Your task to perform on an android device: Open Yahoo.com Image 0: 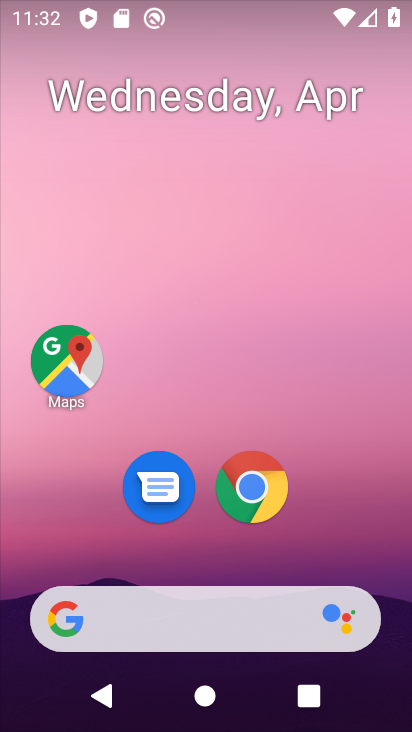
Step 0: click (241, 478)
Your task to perform on an android device: Open Yahoo.com Image 1: 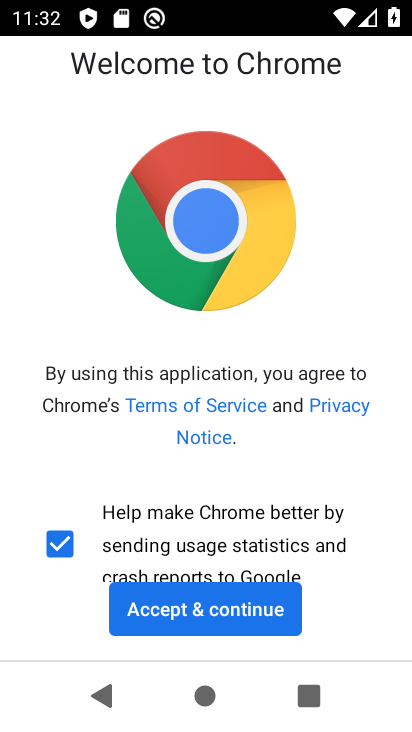
Step 1: click (195, 616)
Your task to perform on an android device: Open Yahoo.com Image 2: 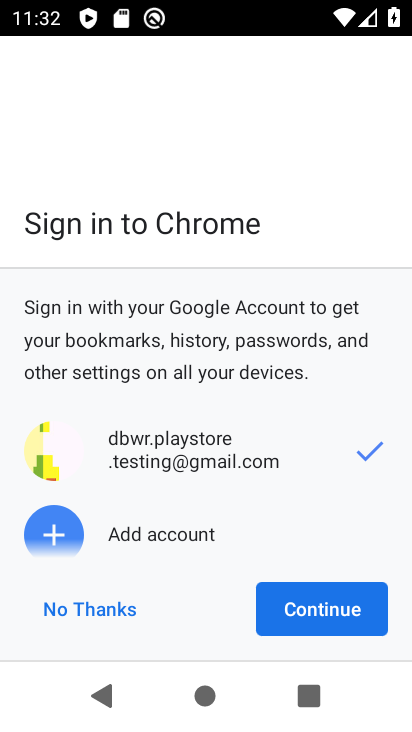
Step 2: click (111, 616)
Your task to perform on an android device: Open Yahoo.com Image 3: 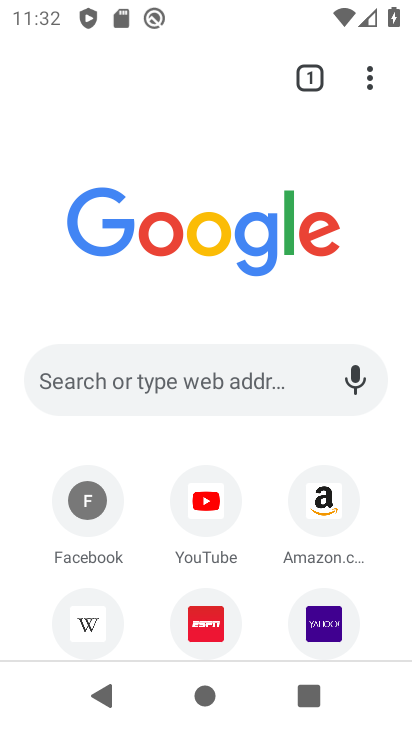
Step 3: click (314, 609)
Your task to perform on an android device: Open Yahoo.com Image 4: 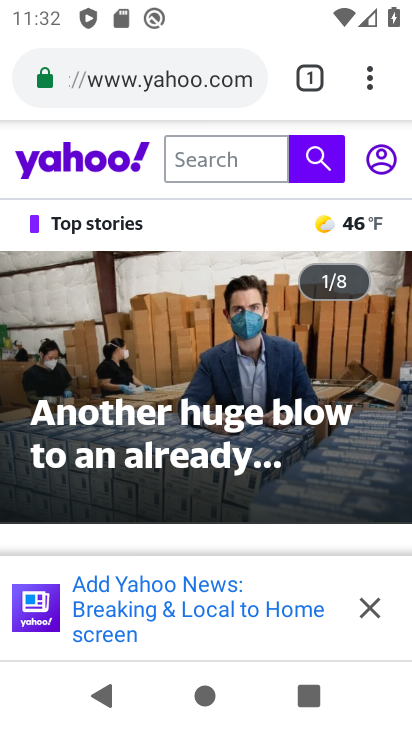
Step 4: task complete